Your task to perform on an android device: Open Google Chrome Image 0: 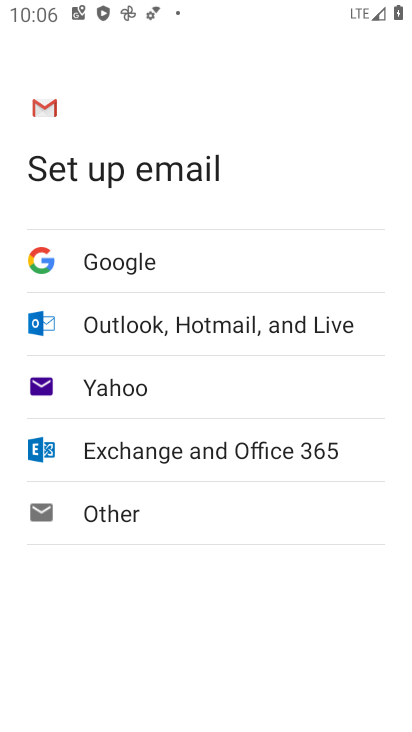
Step 0: press home button
Your task to perform on an android device: Open Google Chrome Image 1: 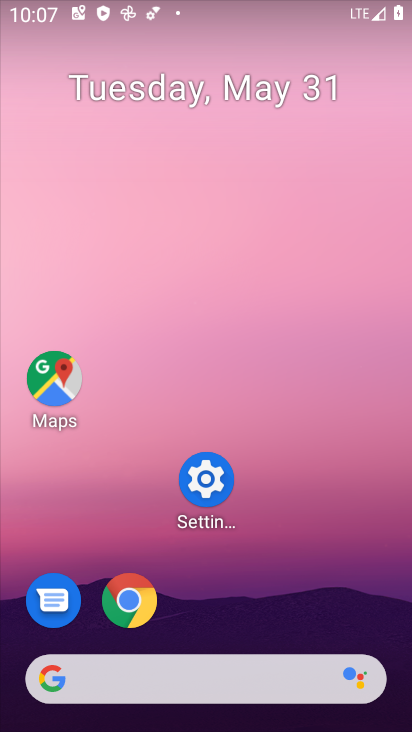
Step 1: click (125, 617)
Your task to perform on an android device: Open Google Chrome Image 2: 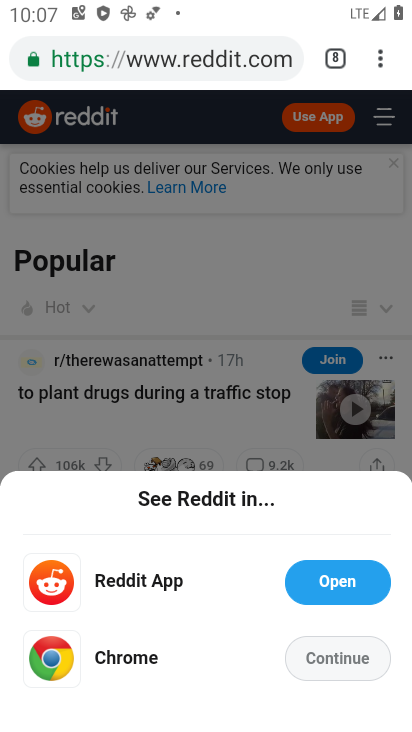
Step 2: click (117, 62)
Your task to perform on an android device: Open Google Chrome Image 3: 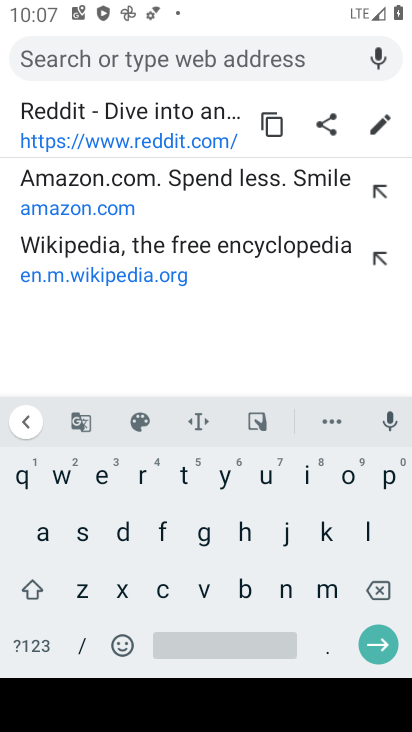
Step 3: press back button
Your task to perform on an android device: Open Google Chrome Image 4: 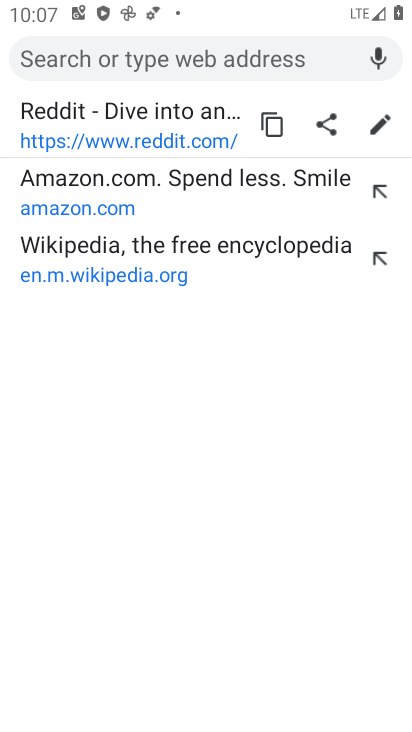
Step 4: press back button
Your task to perform on an android device: Open Google Chrome Image 5: 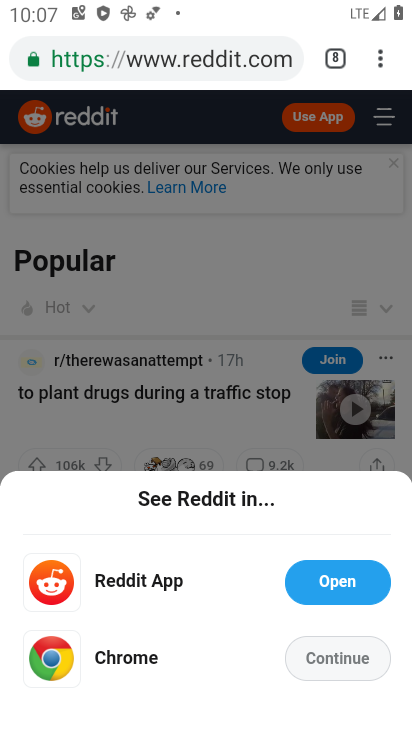
Step 5: click (175, 65)
Your task to perform on an android device: Open Google Chrome Image 6: 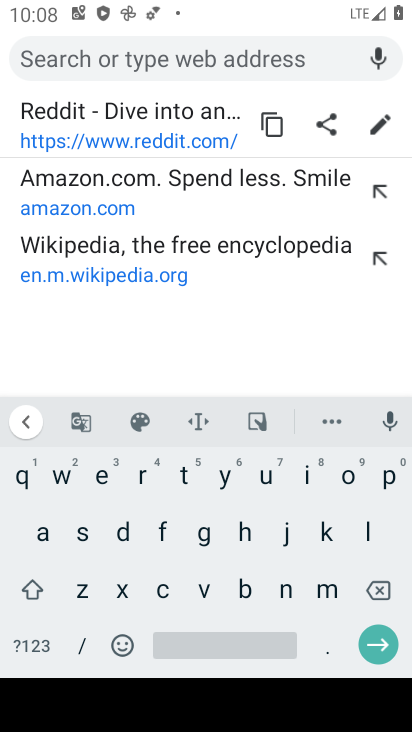
Step 6: task complete